Your task to perform on an android device: Show me the alarms in the clock app Image 0: 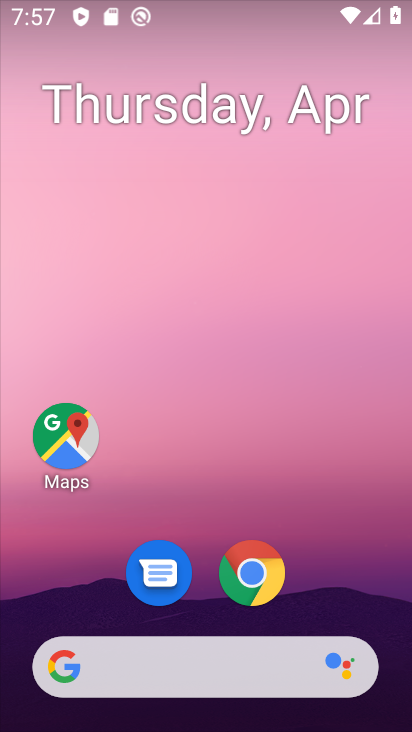
Step 0: drag from (214, 724) to (192, 7)
Your task to perform on an android device: Show me the alarms in the clock app Image 1: 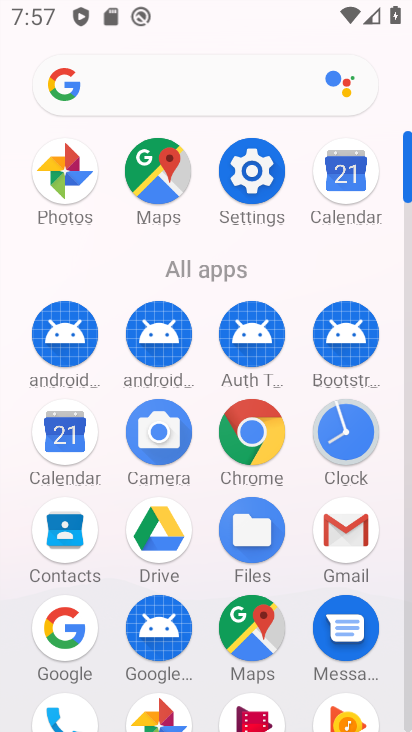
Step 1: click (351, 432)
Your task to perform on an android device: Show me the alarms in the clock app Image 2: 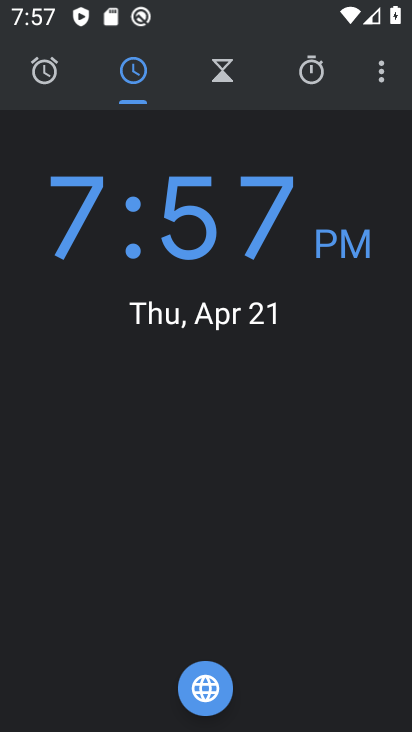
Step 2: click (37, 70)
Your task to perform on an android device: Show me the alarms in the clock app Image 3: 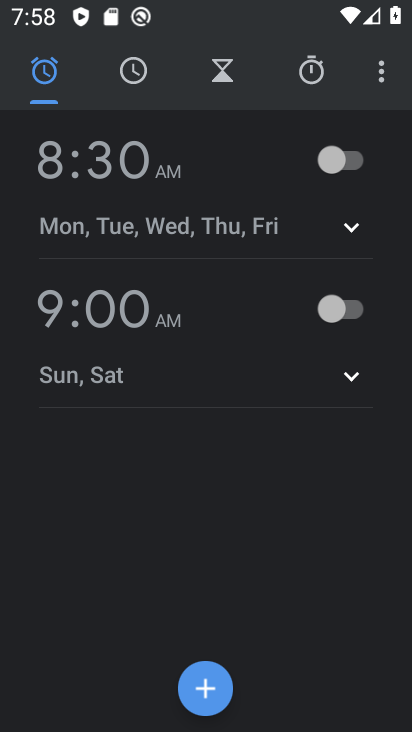
Step 3: task complete